Your task to perform on an android device: open the mobile data screen to see how much data has been used Image 0: 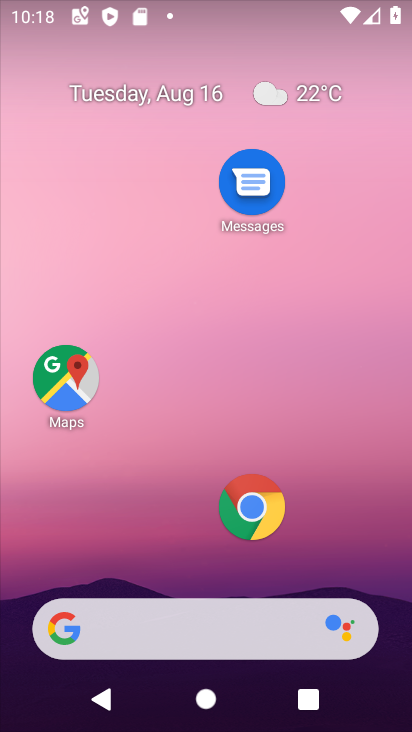
Step 0: drag from (142, 628) to (230, 0)
Your task to perform on an android device: open the mobile data screen to see how much data has been used Image 1: 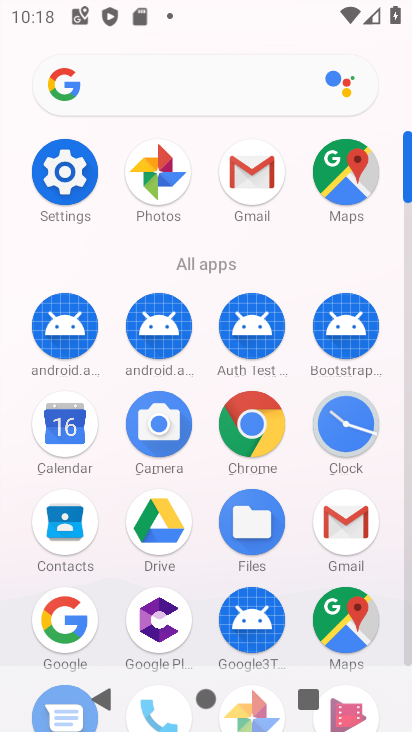
Step 1: click (80, 154)
Your task to perform on an android device: open the mobile data screen to see how much data has been used Image 2: 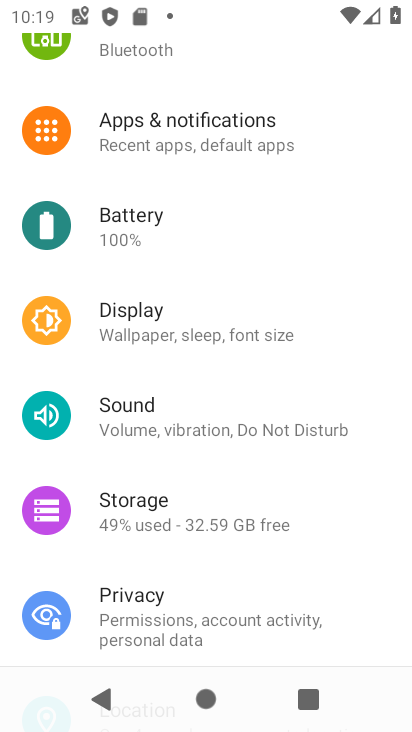
Step 2: drag from (224, 171) to (229, 728)
Your task to perform on an android device: open the mobile data screen to see how much data has been used Image 3: 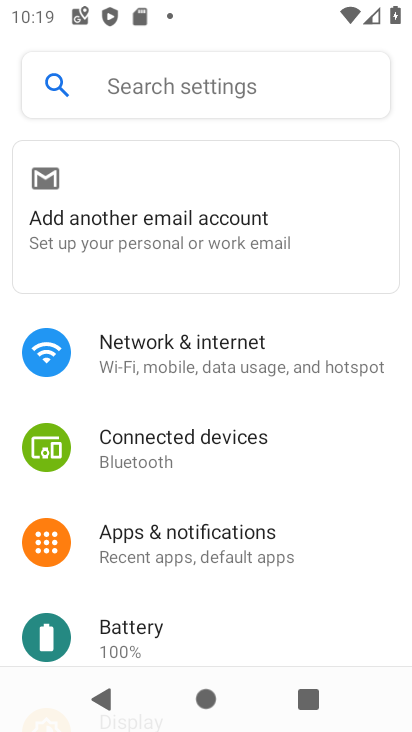
Step 3: click (197, 361)
Your task to perform on an android device: open the mobile data screen to see how much data has been used Image 4: 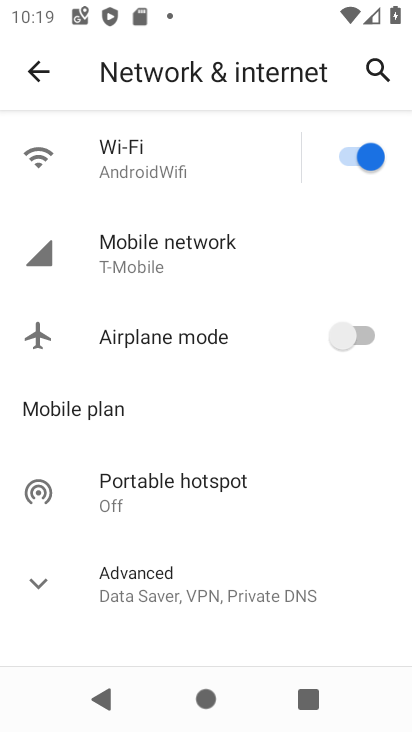
Step 4: click (176, 246)
Your task to perform on an android device: open the mobile data screen to see how much data has been used Image 5: 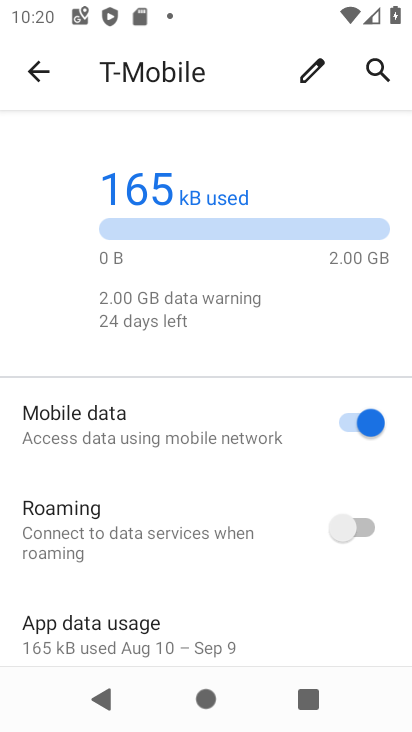
Step 5: click (108, 625)
Your task to perform on an android device: open the mobile data screen to see how much data has been used Image 6: 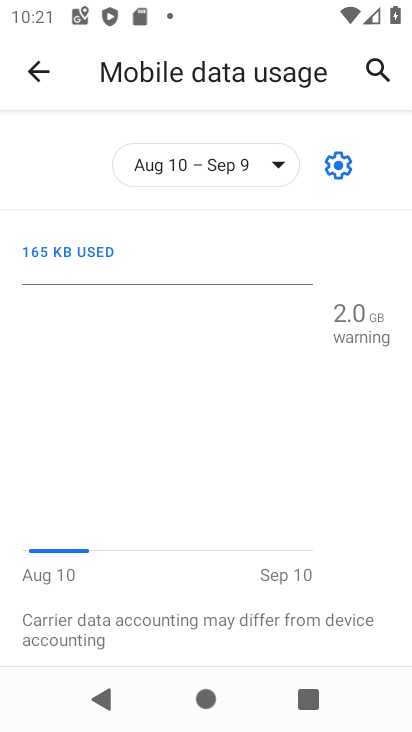
Step 6: task complete